Your task to perform on an android device: Search for hotels in Miami Image 0: 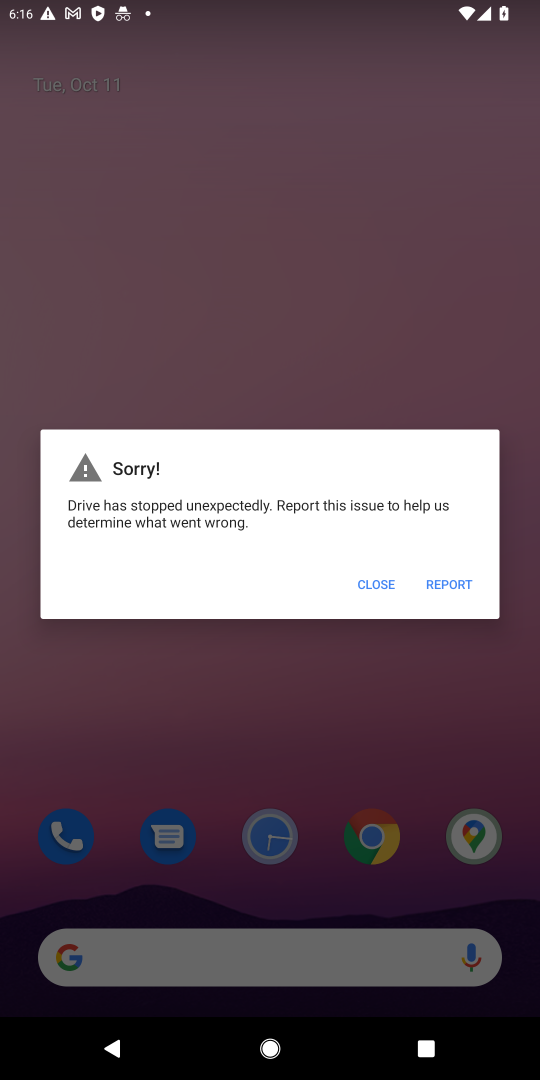
Step 0: click (367, 575)
Your task to perform on an android device: Search for hotels in Miami Image 1: 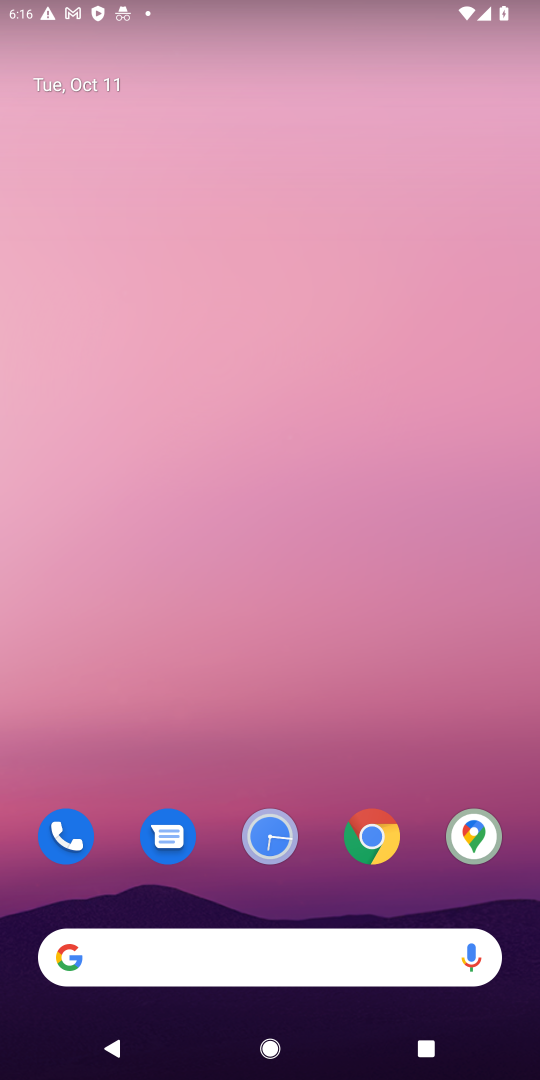
Step 1: click (366, 835)
Your task to perform on an android device: Search for hotels in Miami Image 2: 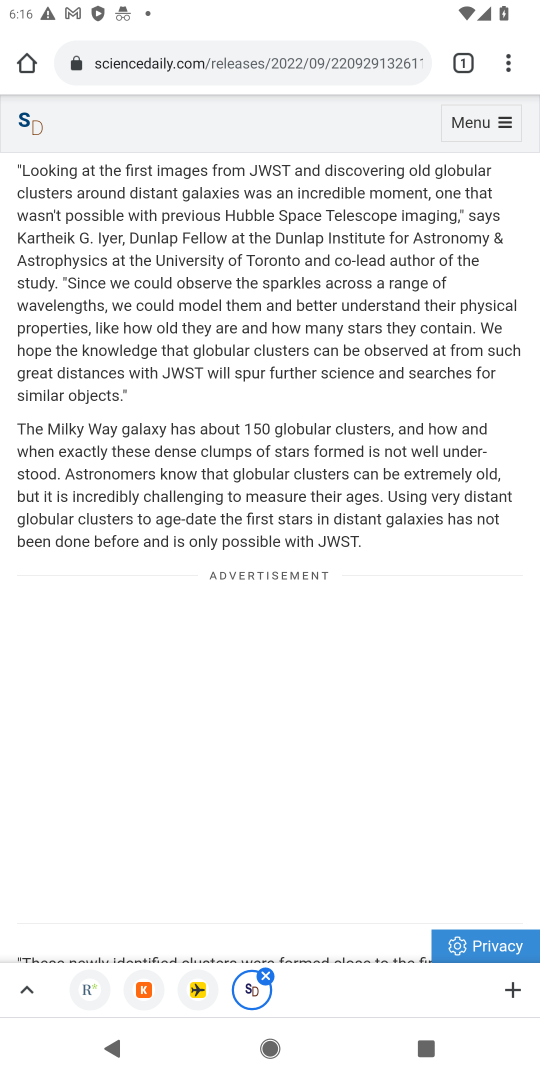
Step 2: click (196, 43)
Your task to perform on an android device: Search for hotels in Miami Image 3: 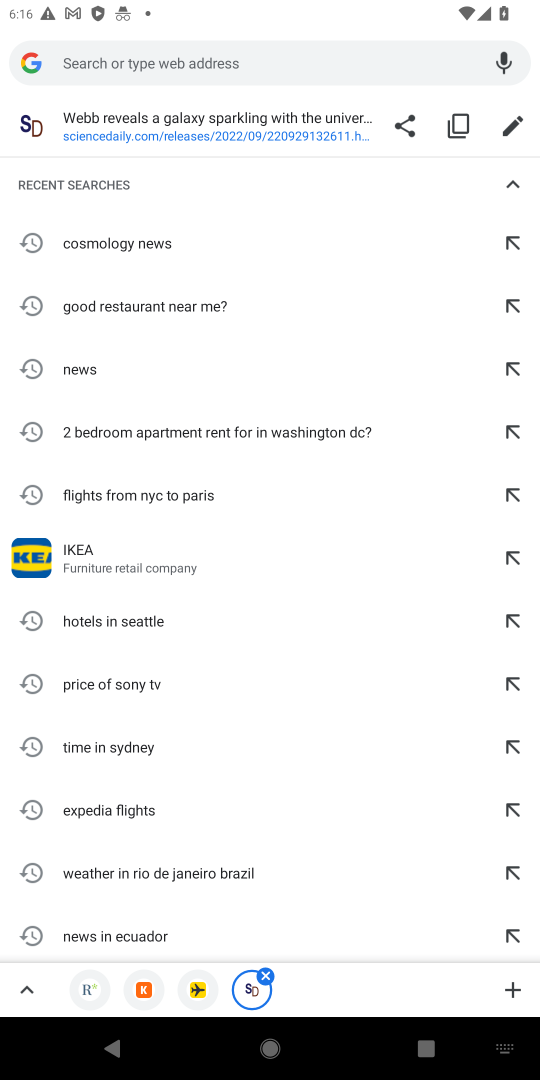
Step 3: type "hotels in miami"
Your task to perform on an android device: Search for hotels in Miami Image 4: 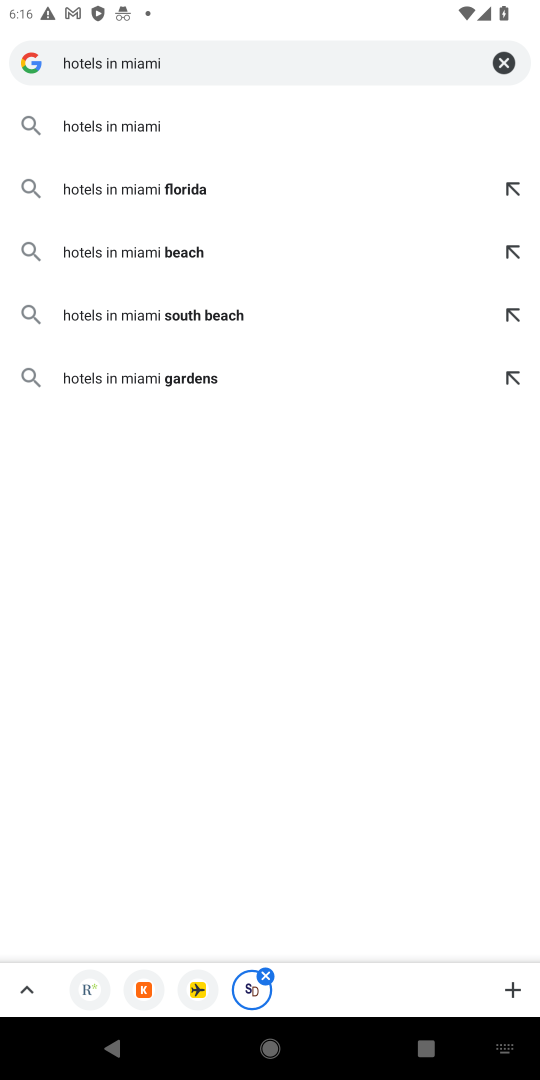
Step 4: click (104, 125)
Your task to perform on an android device: Search for hotels in Miami Image 5: 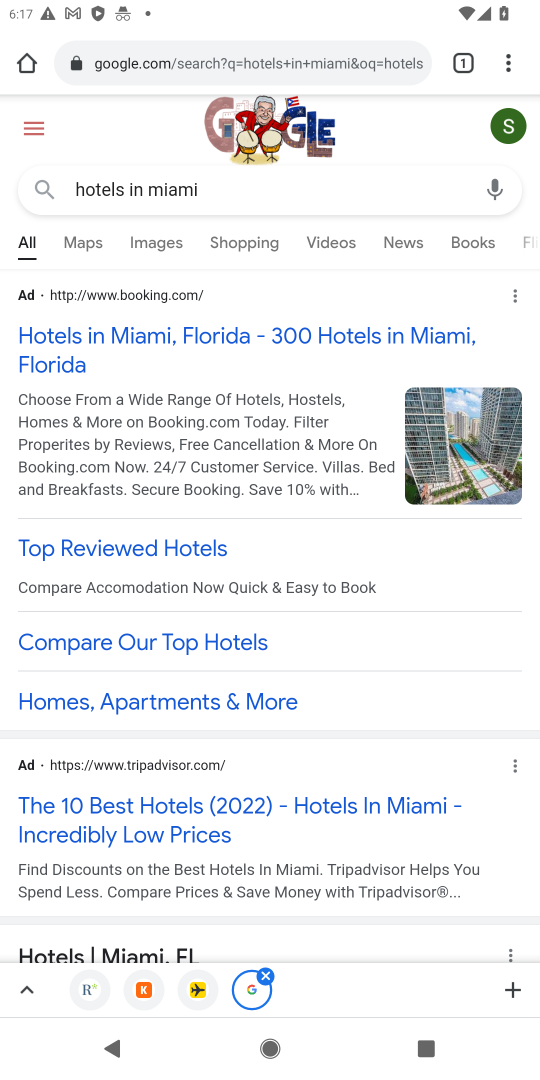
Step 5: click (91, 334)
Your task to perform on an android device: Search for hotels in Miami Image 6: 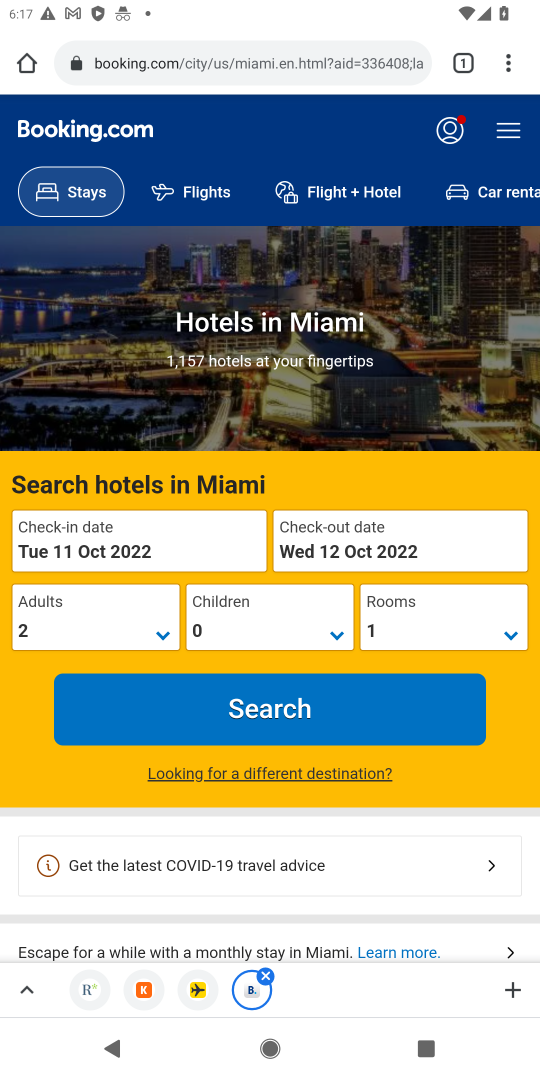
Step 6: click (262, 699)
Your task to perform on an android device: Search for hotels in Miami Image 7: 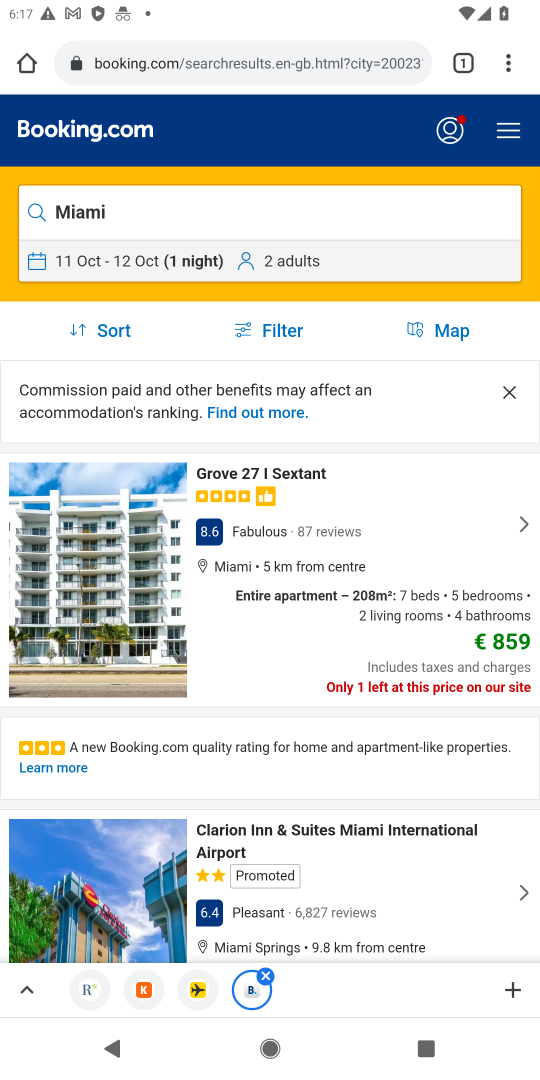
Step 7: task complete